Your task to perform on an android device: Open privacy settings Image 0: 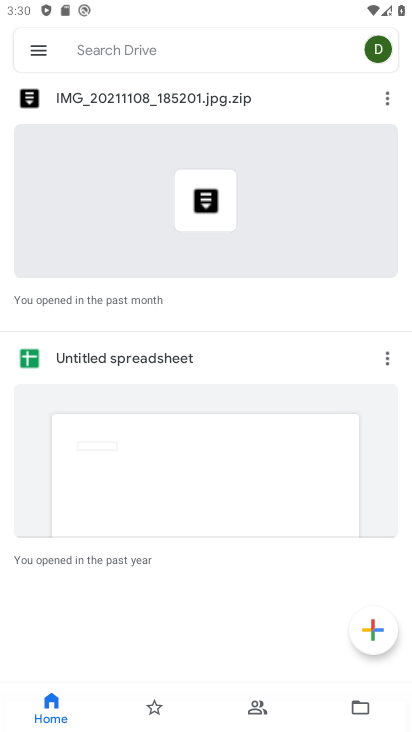
Step 0: press home button
Your task to perform on an android device: Open privacy settings Image 1: 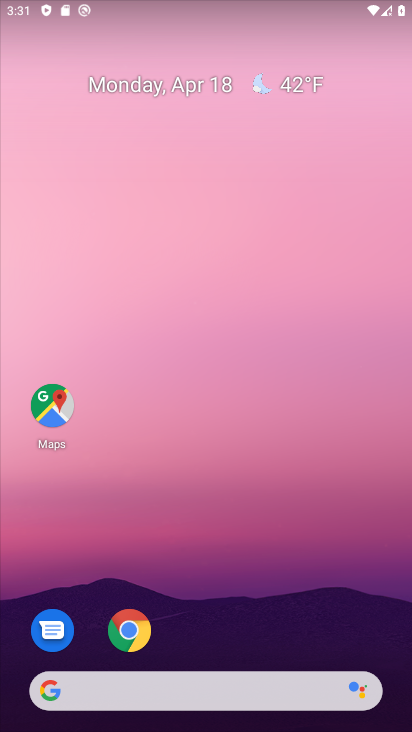
Step 1: drag from (256, 595) to (281, 206)
Your task to perform on an android device: Open privacy settings Image 2: 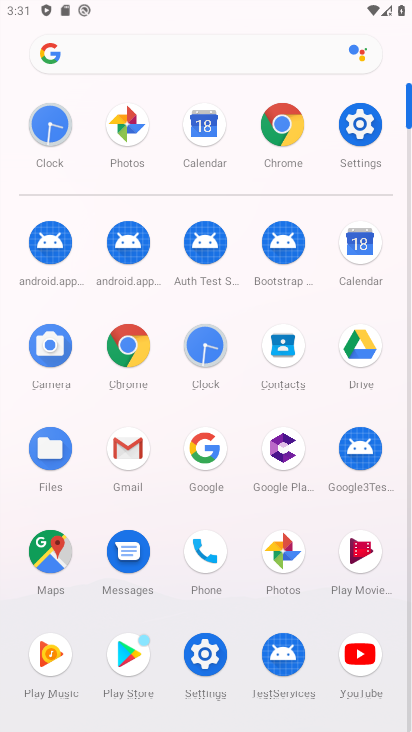
Step 2: click (264, 121)
Your task to perform on an android device: Open privacy settings Image 3: 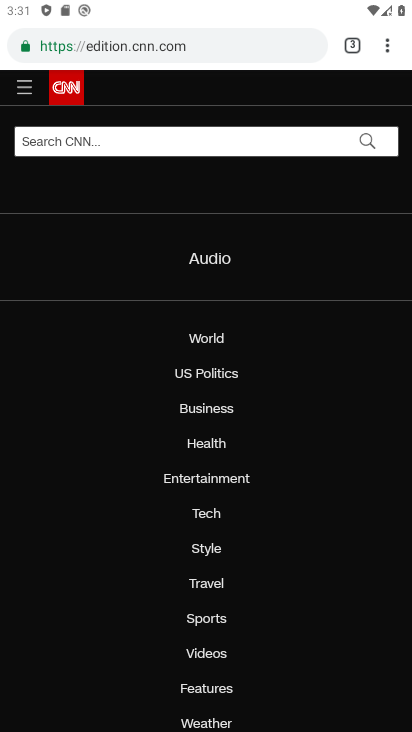
Step 3: click (380, 45)
Your task to perform on an android device: Open privacy settings Image 4: 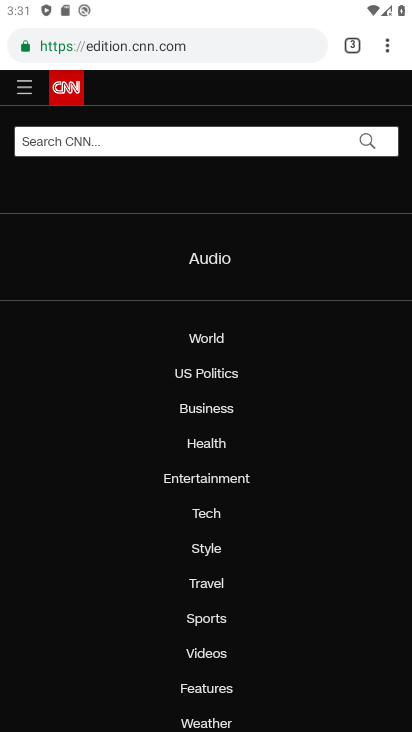
Step 4: click (386, 51)
Your task to perform on an android device: Open privacy settings Image 5: 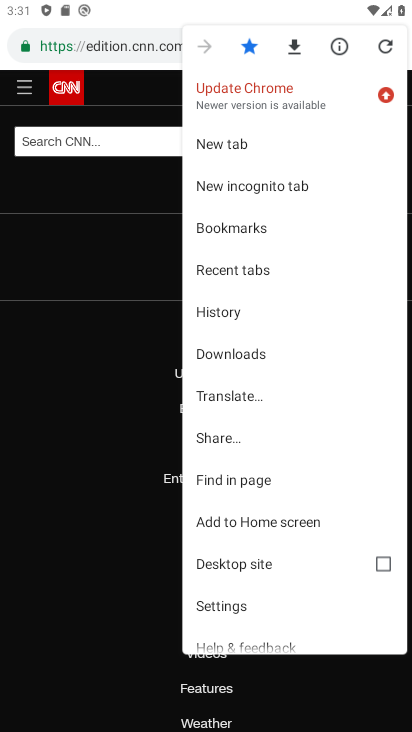
Step 5: click (246, 608)
Your task to perform on an android device: Open privacy settings Image 6: 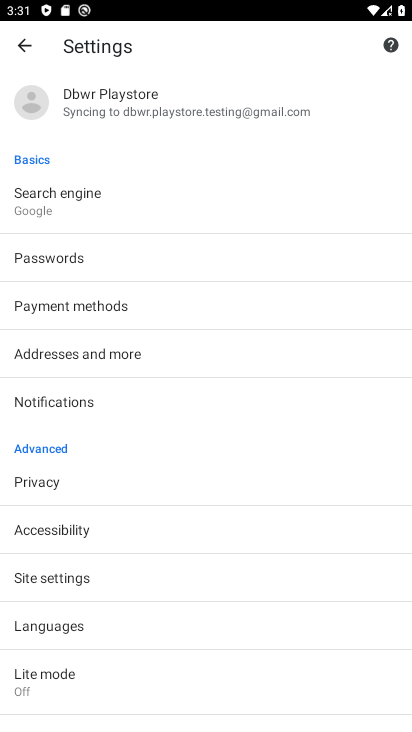
Step 6: click (112, 478)
Your task to perform on an android device: Open privacy settings Image 7: 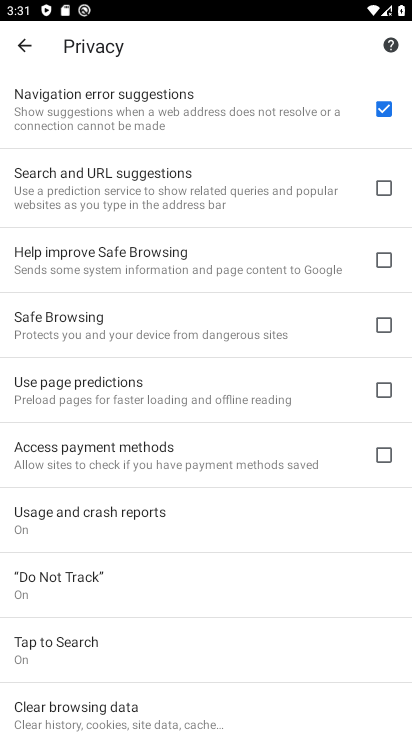
Step 7: task complete